Your task to perform on an android device: Go to Maps Image 0: 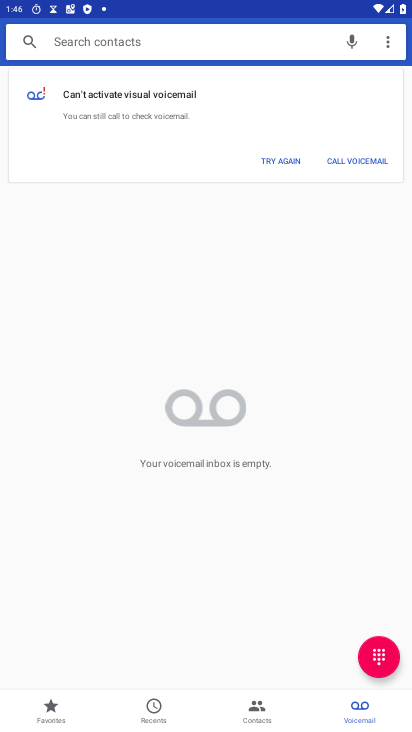
Step 0: press home button
Your task to perform on an android device: Go to Maps Image 1: 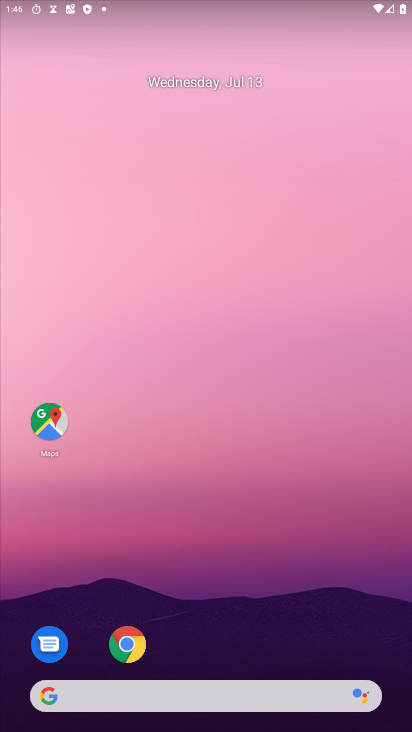
Step 1: click (39, 420)
Your task to perform on an android device: Go to Maps Image 2: 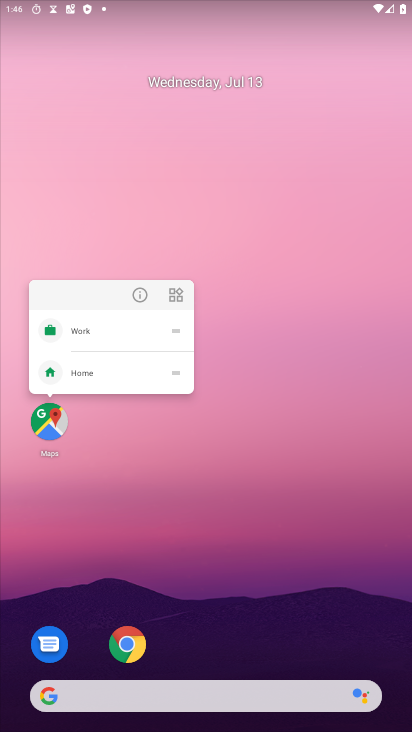
Step 2: click (37, 424)
Your task to perform on an android device: Go to Maps Image 3: 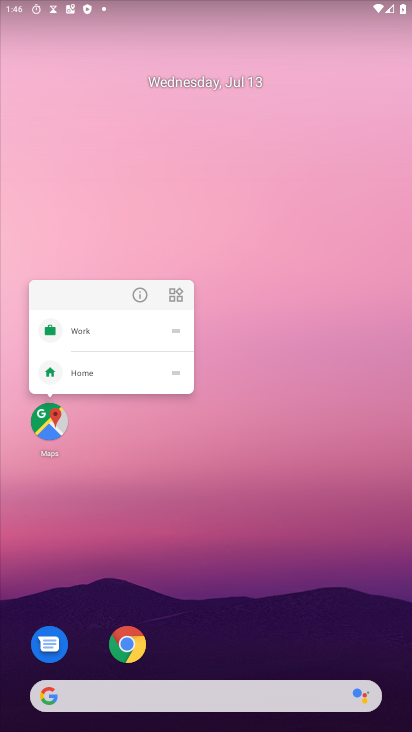
Step 3: click (48, 427)
Your task to perform on an android device: Go to Maps Image 4: 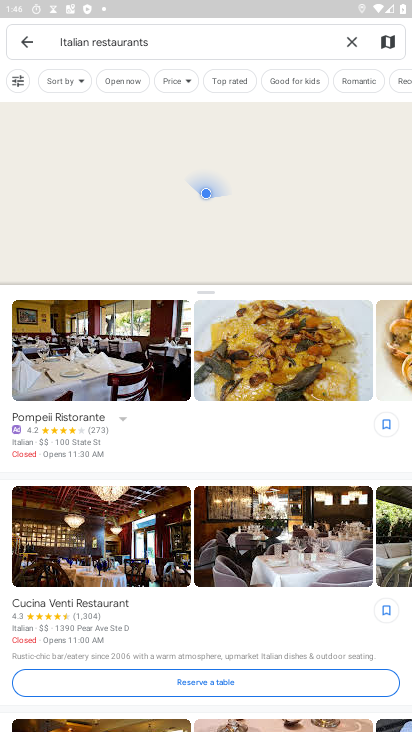
Step 4: click (351, 39)
Your task to perform on an android device: Go to Maps Image 5: 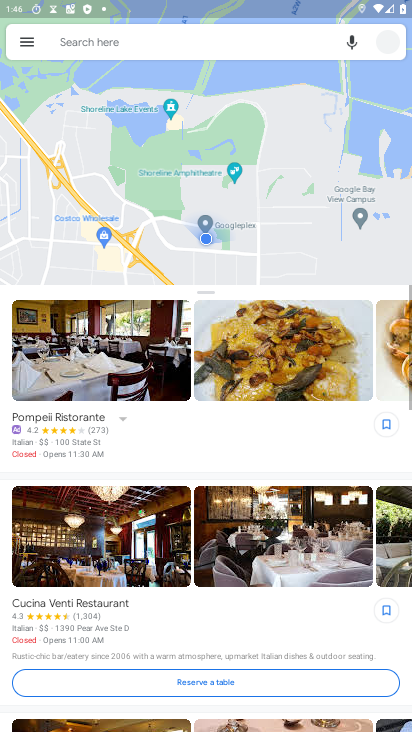
Step 5: task complete